Your task to perform on an android device: What's on my calendar today? Image 0: 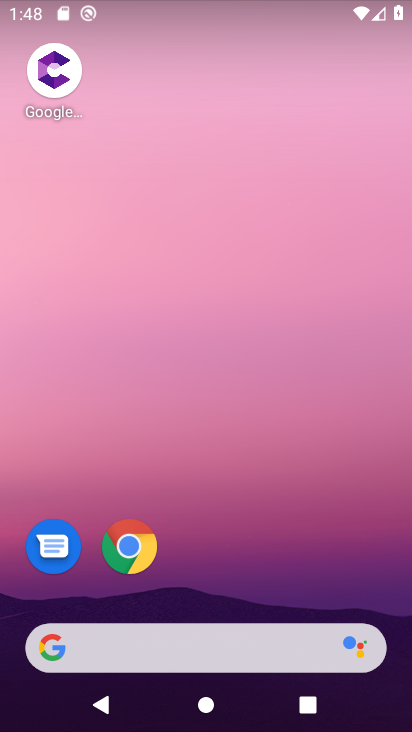
Step 0: press home button
Your task to perform on an android device: What's on my calendar today? Image 1: 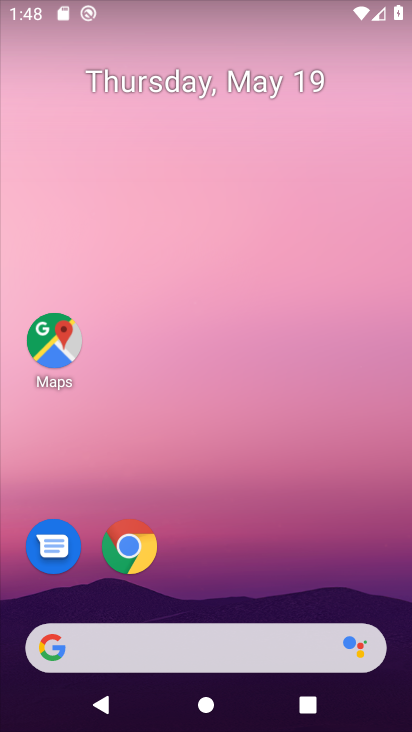
Step 1: drag from (210, 601) to (228, 0)
Your task to perform on an android device: What's on my calendar today? Image 2: 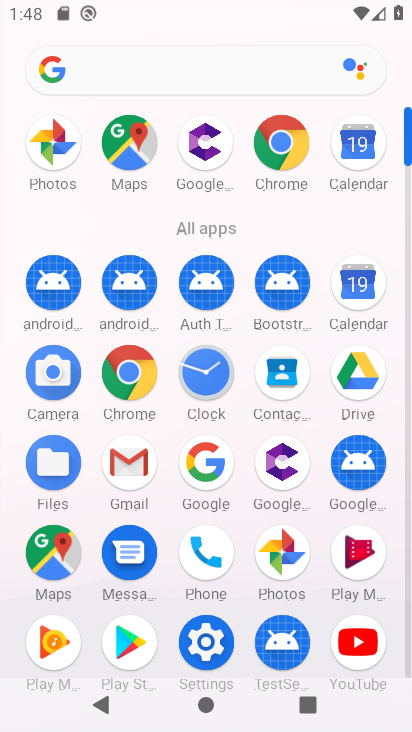
Step 2: click (358, 286)
Your task to perform on an android device: What's on my calendar today? Image 3: 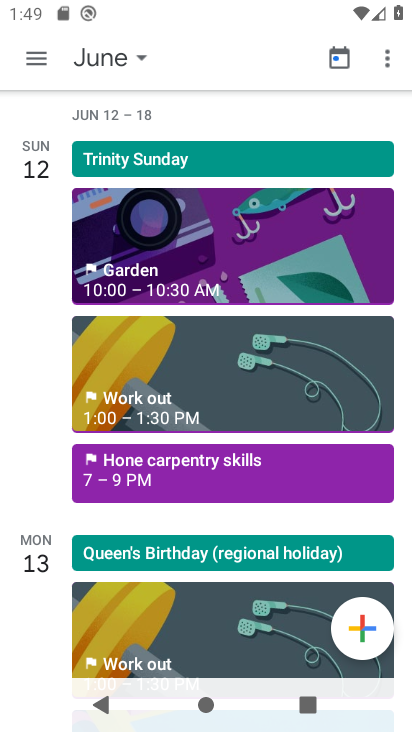
Step 3: click (114, 62)
Your task to perform on an android device: What's on my calendar today? Image 4: 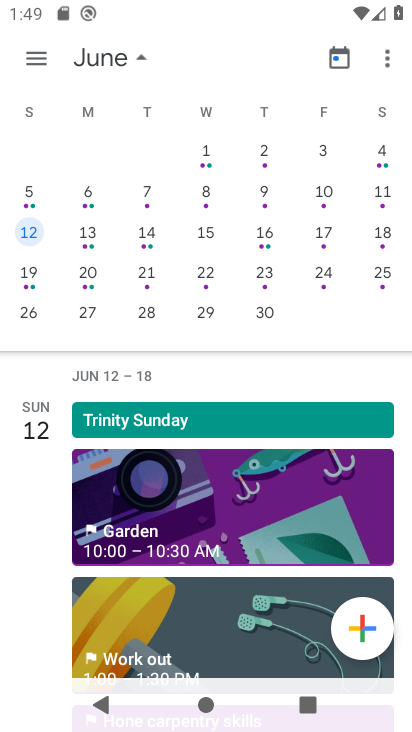
Step 4: drag from (47, 168) to (340, 215)
Your task to perform on an android device: What's on my calendar today? Image 5: 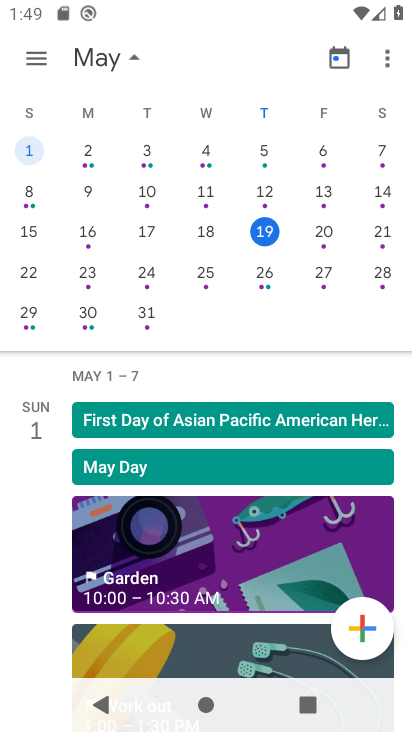
Step 5: click (263, 228)
Your task to perform on an android device: What's on my calendar today? Image 6: 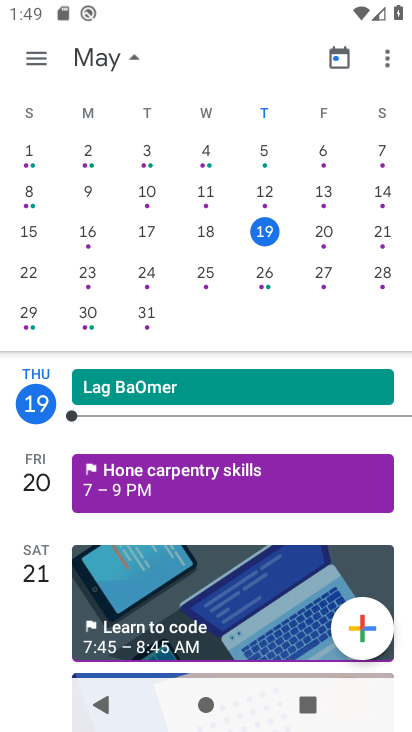
Step 6: click (58, 414)
Your task to perform on an android device: What's on my calendar today? Image 7: 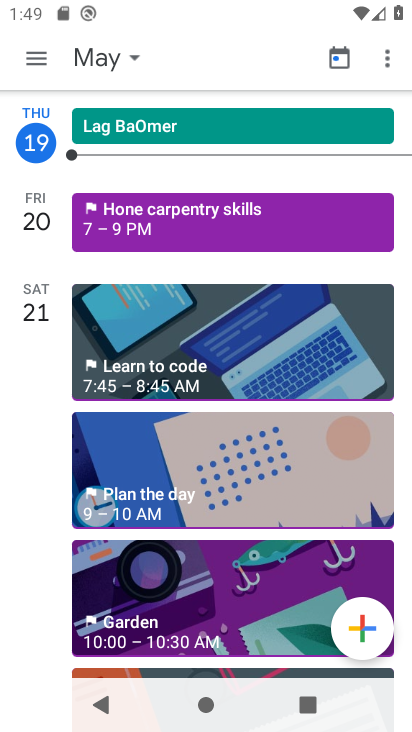
Step 7: click (57, 169)
Your task to perform on an android device: What's on my calendar today? Image 8: 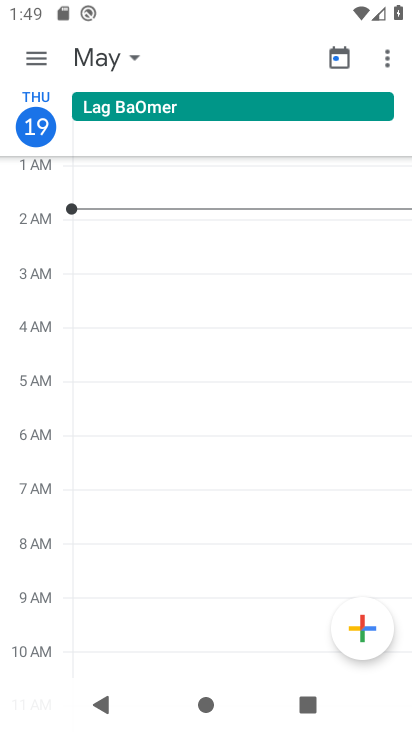
Step 8: task complete